Your task to perform on an android device: Open network settings Image 0: 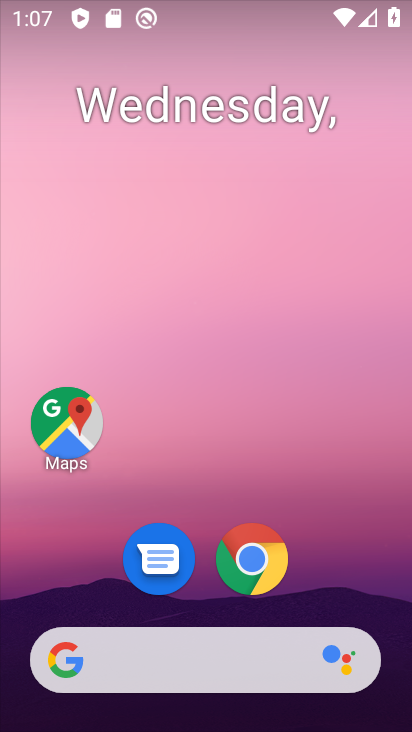
Step 0: drag from (332, 564) to (337, 75)
Your task to perform on an android device: Open network settings Image 1: 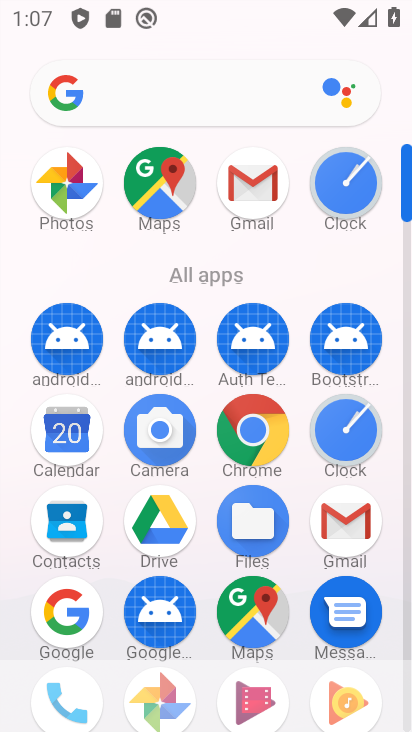
Step 1: drag from (302, 224) to (311, 28)
Your task to perform on an android device: Open network settings Image 2: 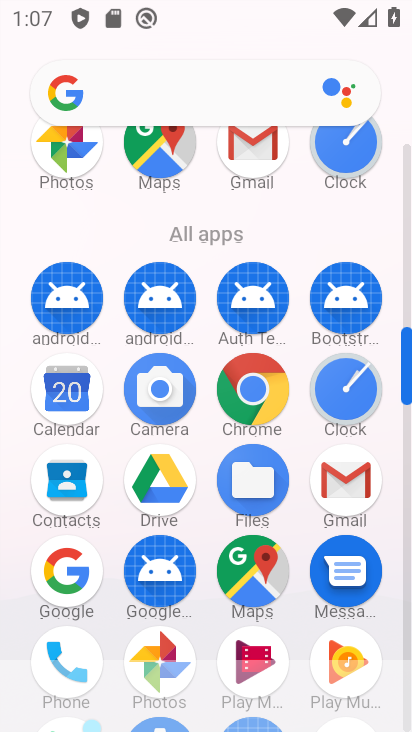
Step 2: drag from (287, 218) to (308, 40)
Your task to perform on an android device: Open network settings Image 3: 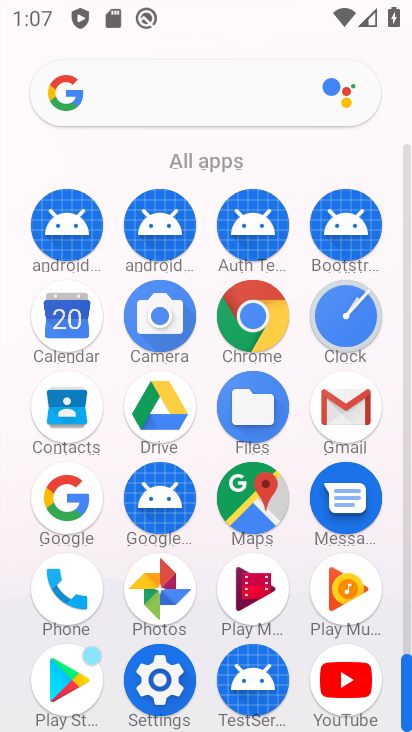
Step 3: click (166, 679)
Your task to perform on an android device: Open network settings Image 4: 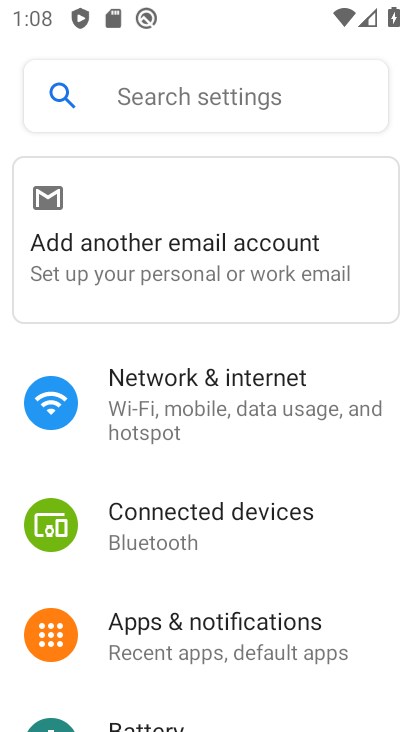
Step 4: click (218, 374)
Your task to perform on an android device: Open network settings Image 5: 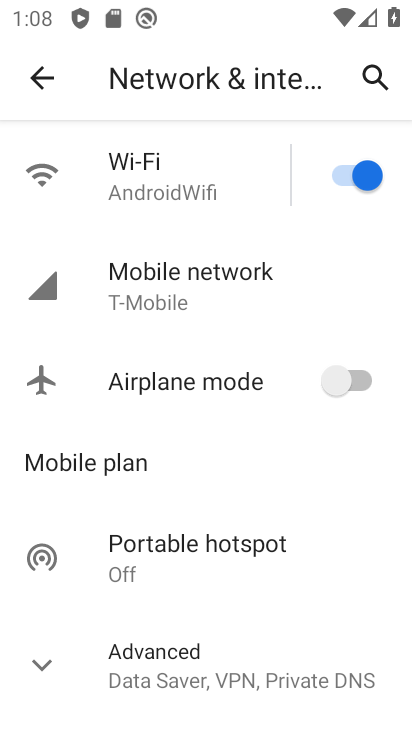
Step 5: task complete